Your task to perform on an android device: What is the recent news? Image 0: 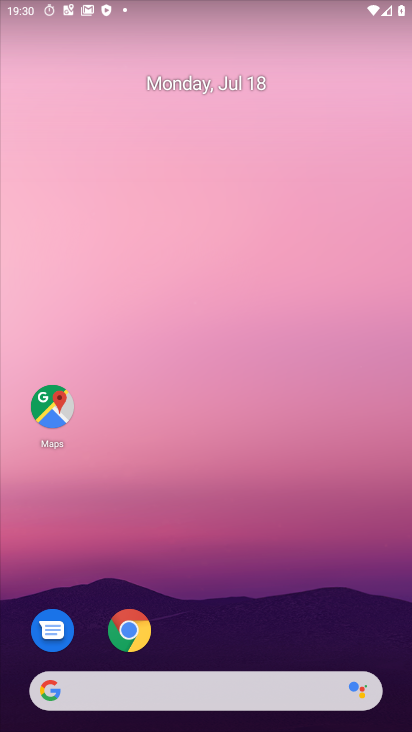
Step 0: drag from (252, 376) to (213, 1)
Your task to perform on an android device: What is the recent news? Image 1: 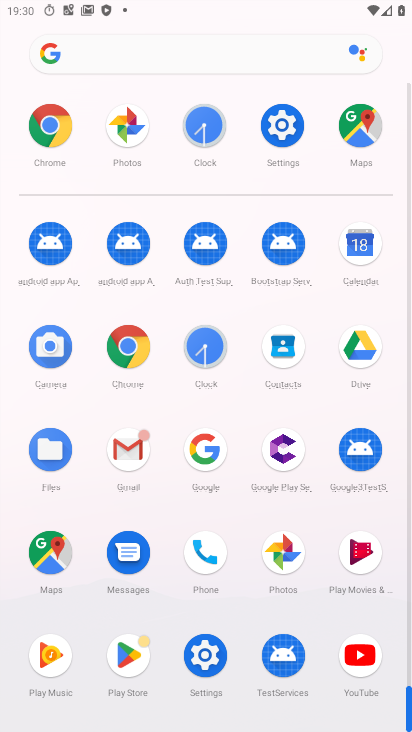
Step 1: click (119, 335)
Your task to perform on an android device: What is the recent news? Image 2: 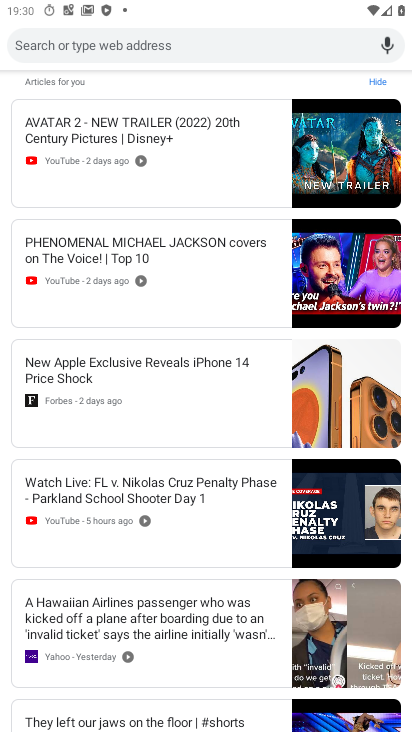
Step 2: task complete